Your task to perform on an android device: Open location settings Image 0: 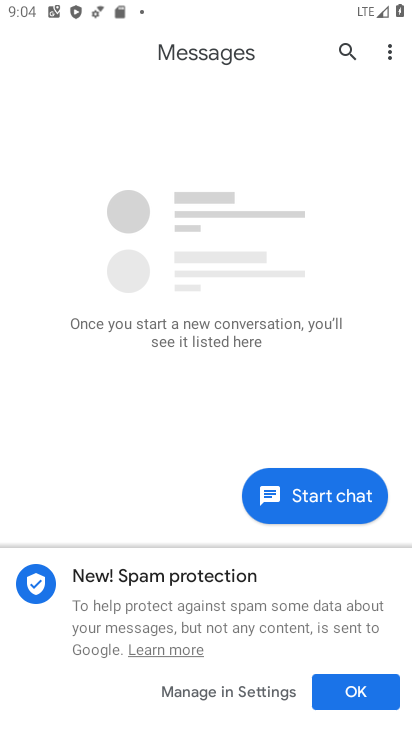
Step 0: press home button
Your task to perform on an android device: Open location settings Image 1: 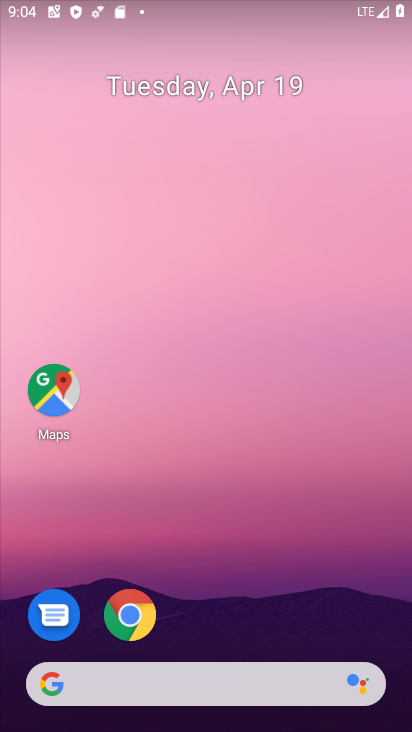
Step 1: drag from (253, 642) to (256, 128)
Your task to perform on an android device: Open location settings Image 2: 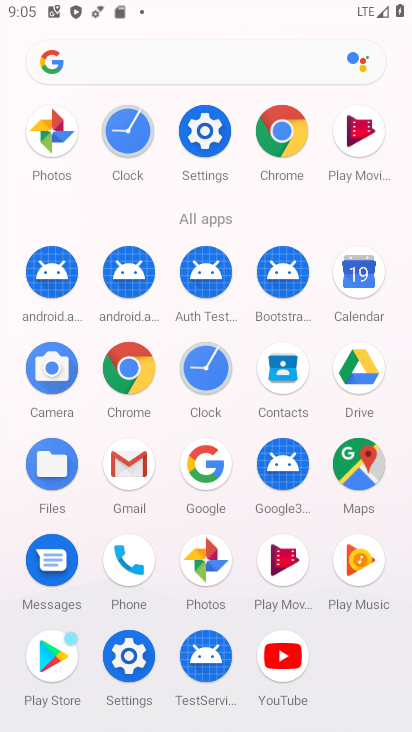
Step 2: click (131, 648)
Your task to perform on an android device: Open location settings Image 3: 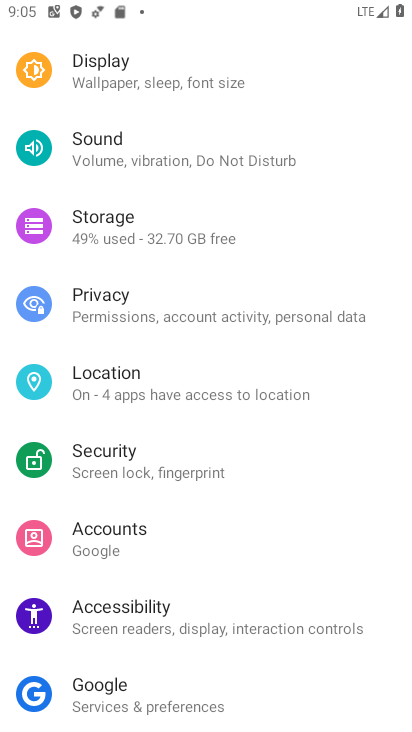
Step 3: click (169, 274)
Your task to perform on an android device: Open location settings Image 4: 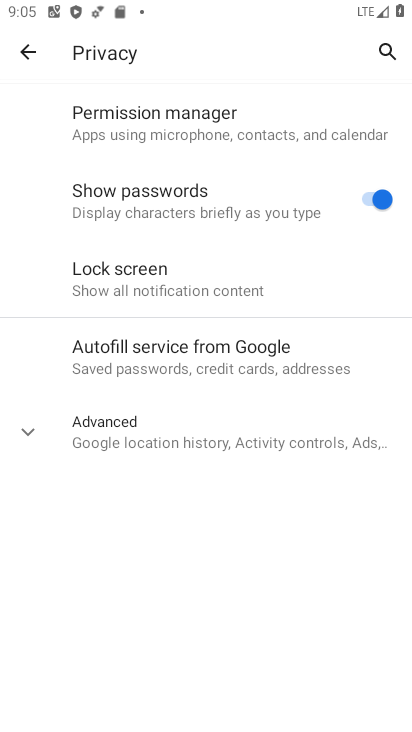
Step 4: task complete